Your task to perform on an android device: Check the news Image 0: 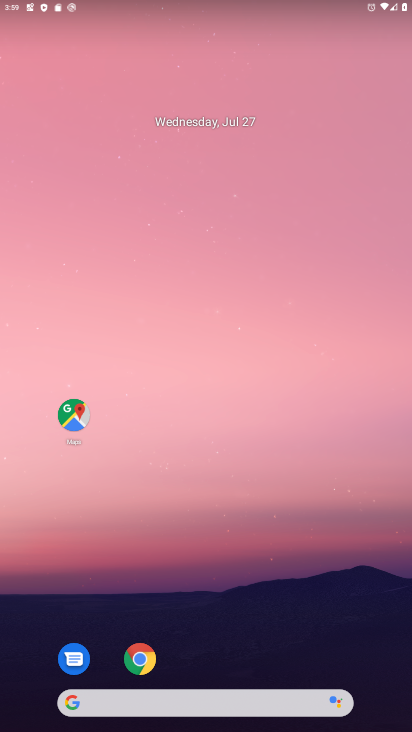
Step 0: click (215, 694)
Your task to perform on an android device: Check the news Image 1: 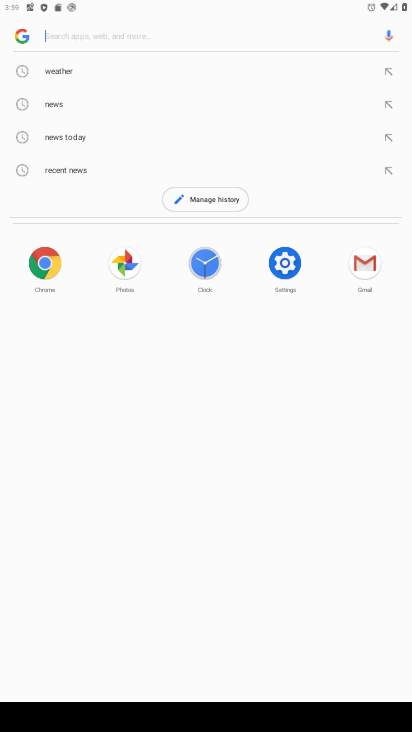
Step 1: type "news"
Your task to perform on an android device: Check the news Image 2: 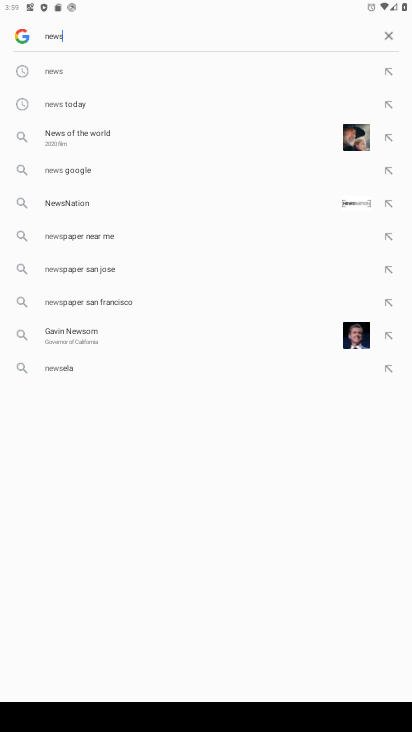
Step 2: click (177, 69)
Your task to perform on an android device: Check the news Image 3: 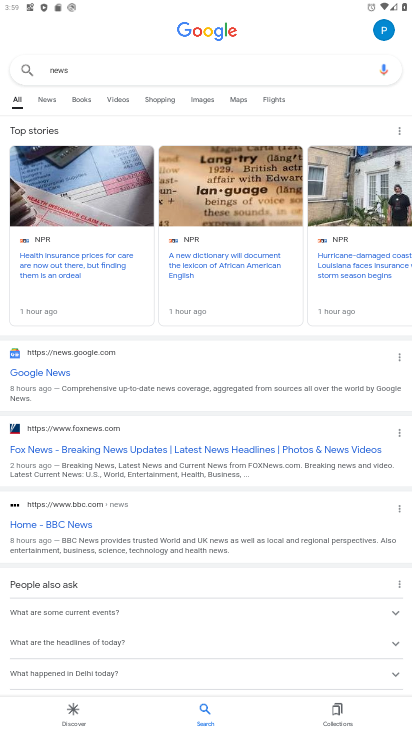
Step 3: click (47, 94)
Your task to perform on an android device: Check the news Image 4: 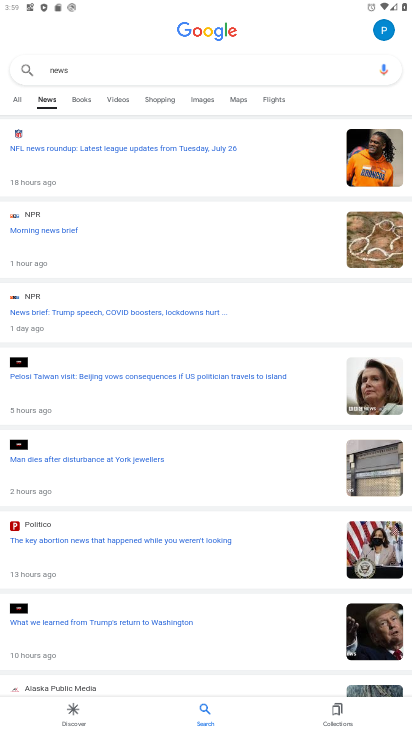
Step 4: task complete